Your task to perform on an android device: find photos in the google photos app Image 0: 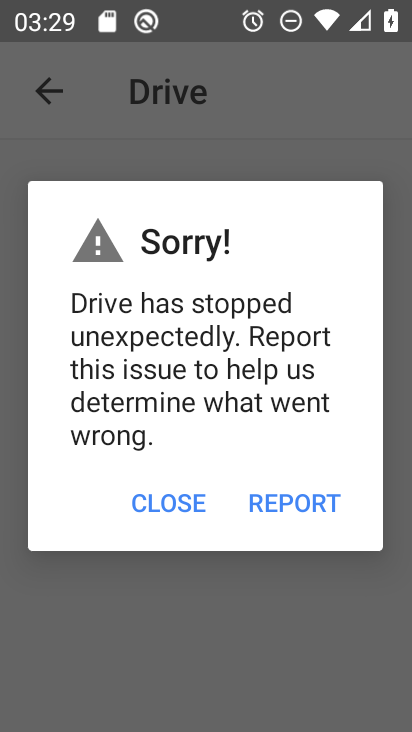
Step 0: press home button
Your task to perform on an android device: find photos in the google photos app Image 1: 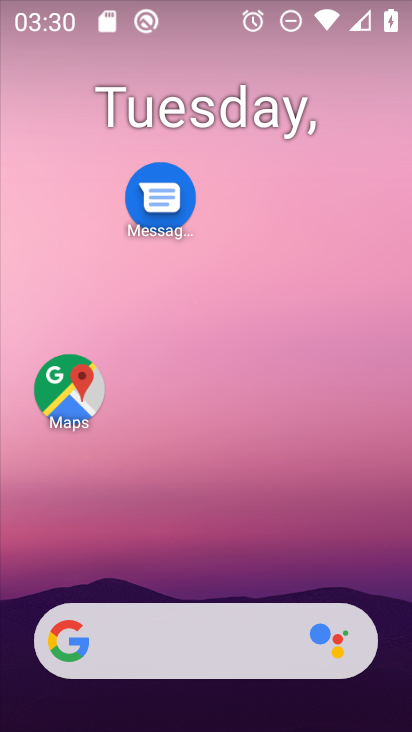
Step 1: drag from (180, 571) to (253, 151)
Your task to perform on an android device: find photos in the google photos app Image 2: 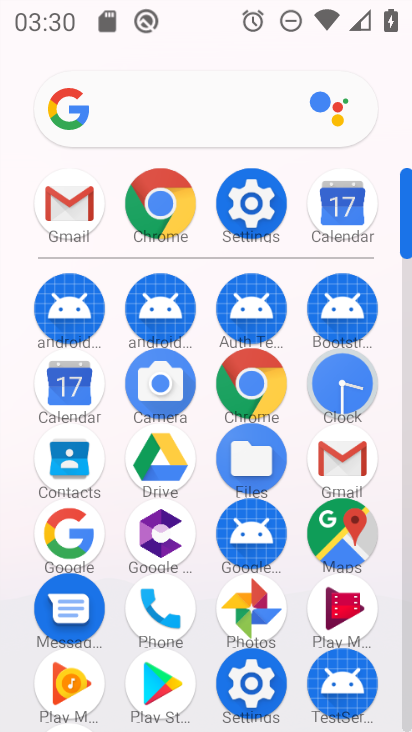
Step 2: click (234, 600)
Your task to perform on an android device: find photos in the google photos app Image 3: 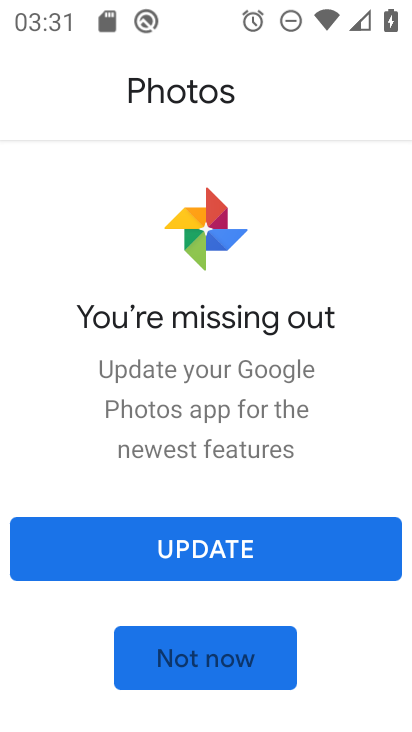
Step 3: click (213, 638)
Your task to perform on an android device: find photos in the google photos app Image 4: 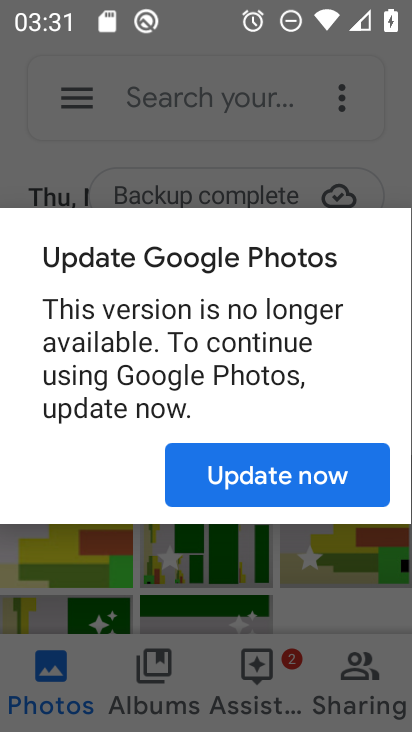
Step 4: click (244, 459)
Your task to perform on an android device: find photos in the google photos app Image 5: 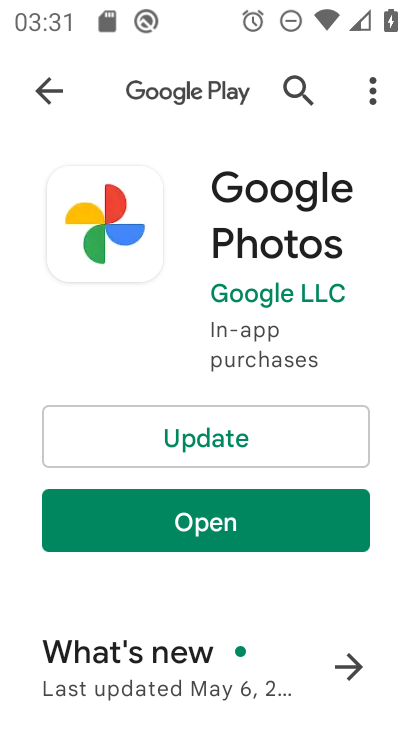
Step 5: click (240, 519)
Your task to perform on an android device: find photos in the google photos app Image 6: 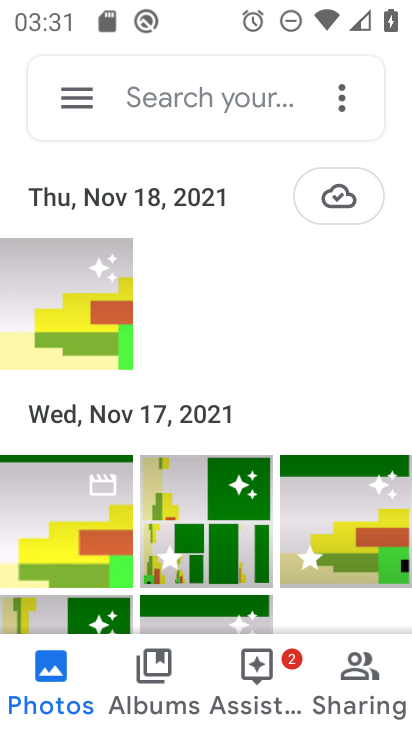
Step 6: click (190, 97)
Your task to perform on an android device: find photos in the google photos app Image 7: 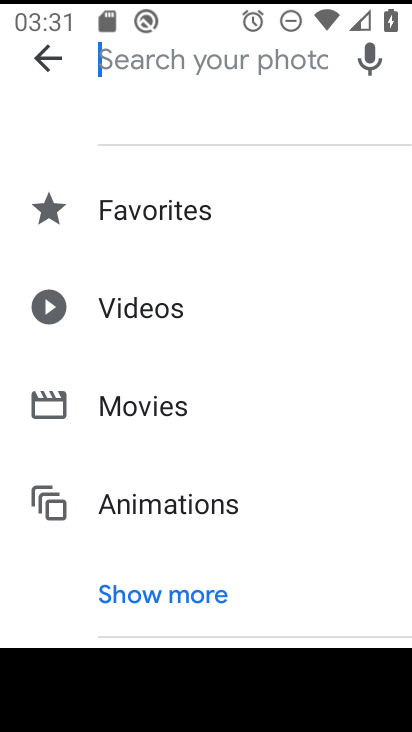
Step 7: type "aa"
Your task to perform on an android device: find photos in the google photos app Image 8: 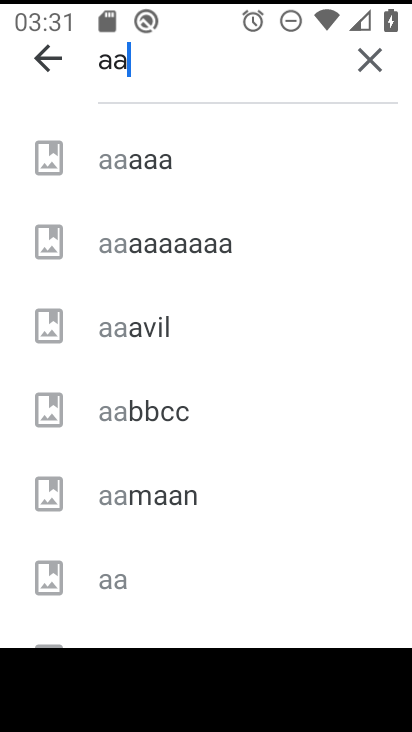
Step 8: click (171, 168)
Your task to perform on an android device: find photos in the google photos app Image 9: 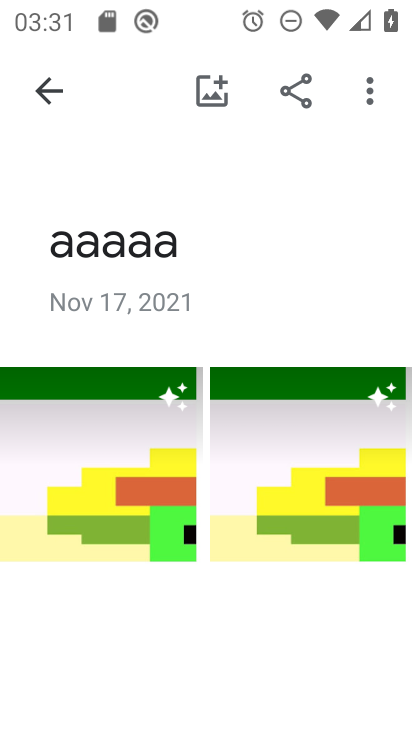
Step 9: task complete